Your task to perform on an android device: allow notifications from all sites in the chrome app Image 0: 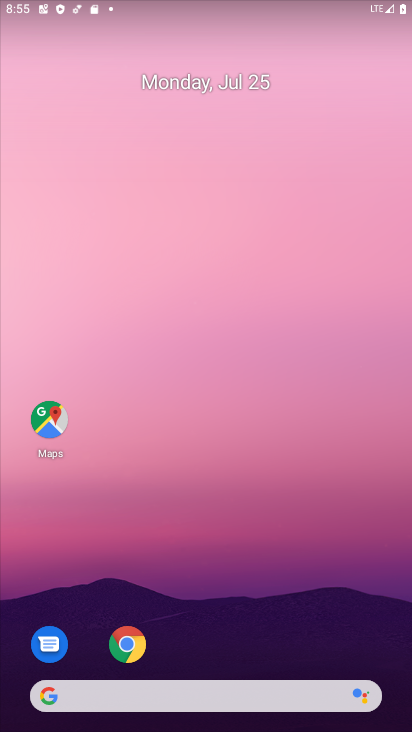
Step 0: drag from (263, 596) to (281, 0)
Your task to perform on an android device: allow notifications from all sites in the chrome app Image 1: 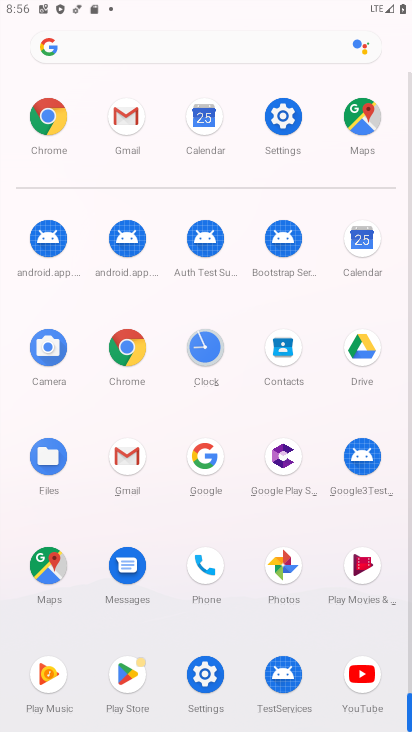
Step 1: click (129, 358)
Your task to perform on an android device: allow notifications from all sites in the chrome app Image 2: 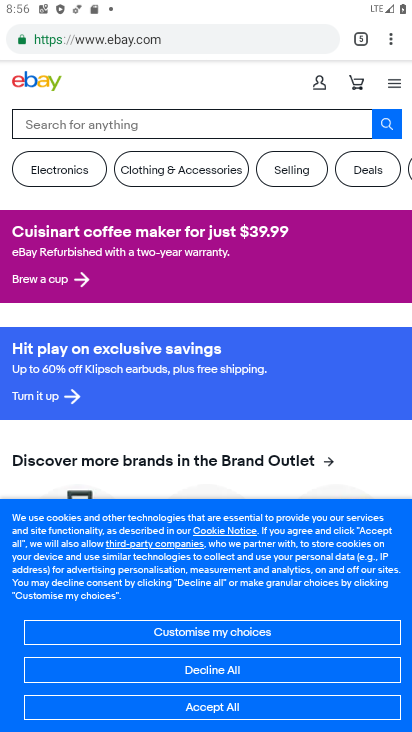
Step 2: click (395, 42)
Your task to perform on an android device: allow notifications from all sites in the chrome app Image 3: 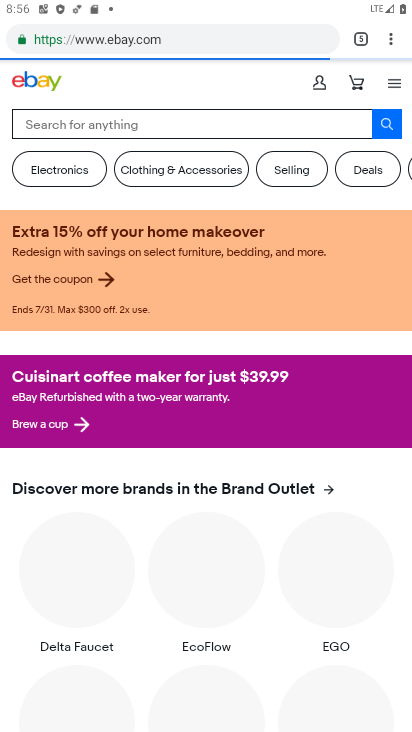
Step 3: click (393, 38)
Your task to perform on an android device: allow notifications from all sites in the chrome app Image 4: 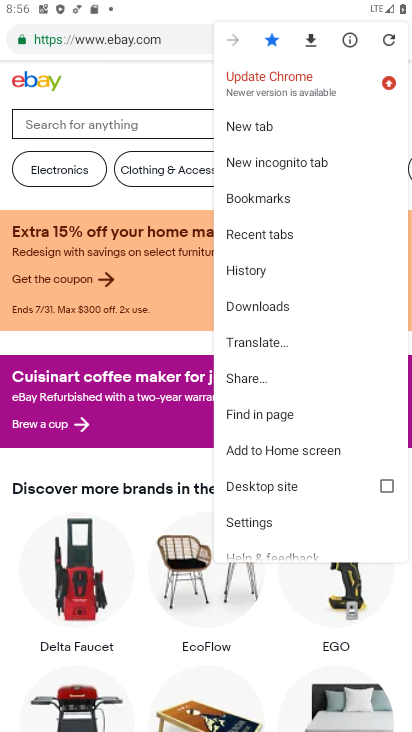
Step 4: click (272, 524)
Your task to perform on an android device: allow notifications from all sites in the chrome app Image 5: 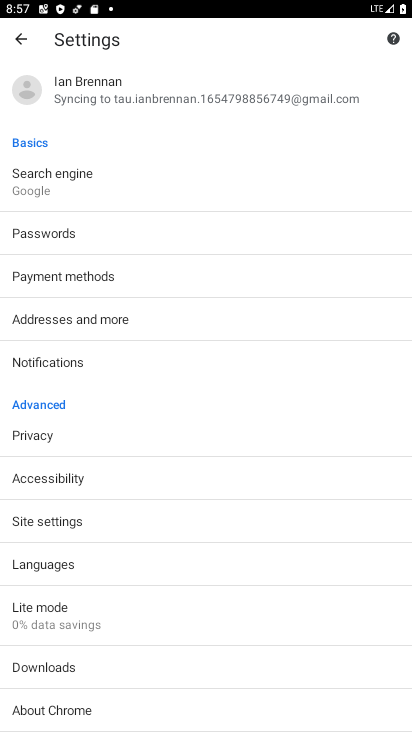
Step 5: click (71, 523)
Your task to perform on an android device: allow notifications from all sites in the chrome app Image 6: 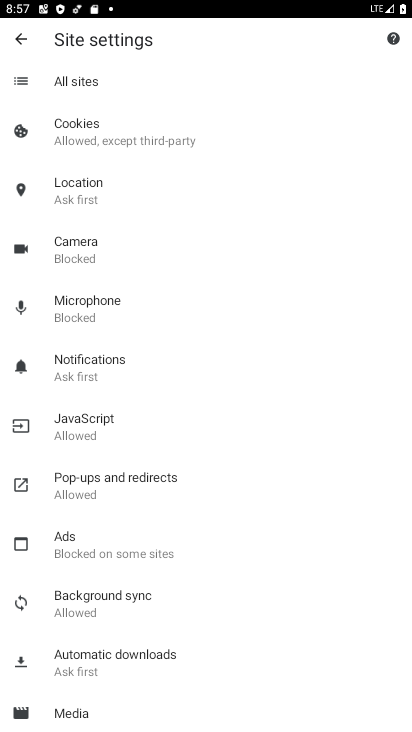
Step 6: click (115, 88)
Your task to perform on an android device: allow notifications from all sites in the chrome app Image 7: 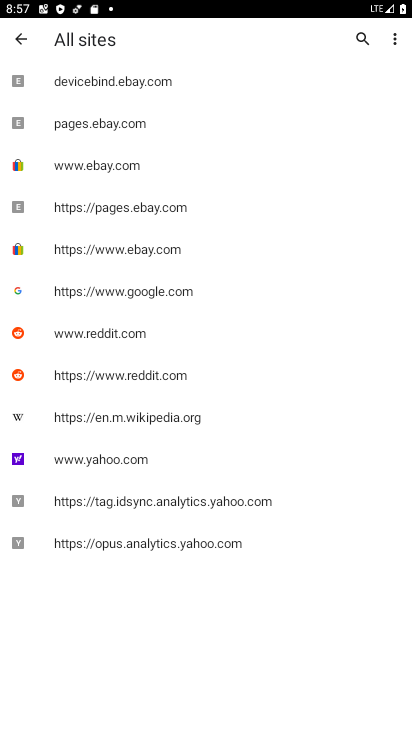
Step 7: click (174, 89)
Your task to perform on an android device: allow notifications from all sites in the chrome app Image 8: 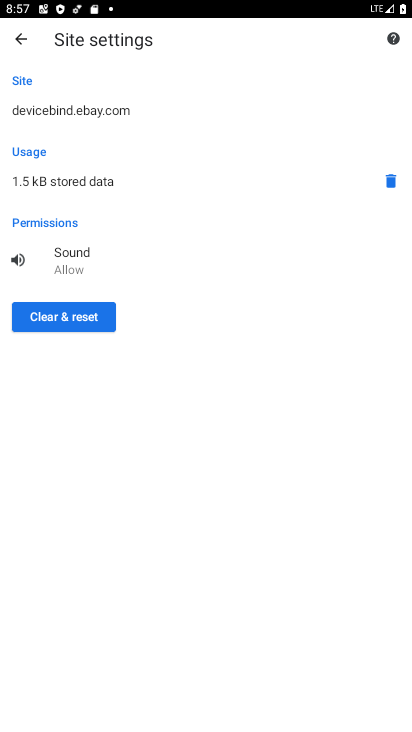
Step 8: click (122, 120)
Your task to perform on an android device: allow notifications from all sites in the chrome app Image 9: 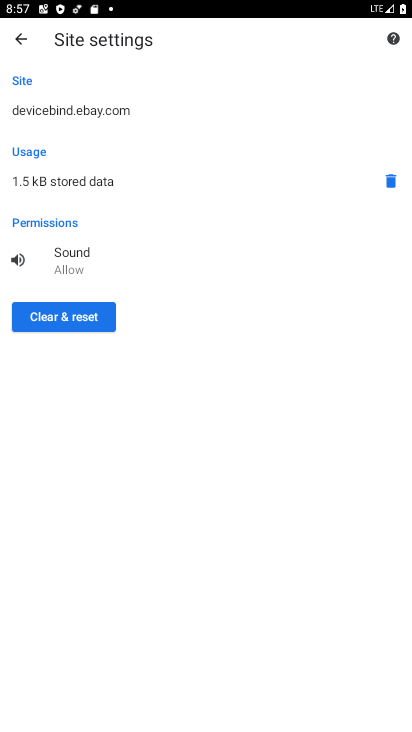
Step 9: task complete